Your task to perform on an android device: change text size in settings app Image 0: 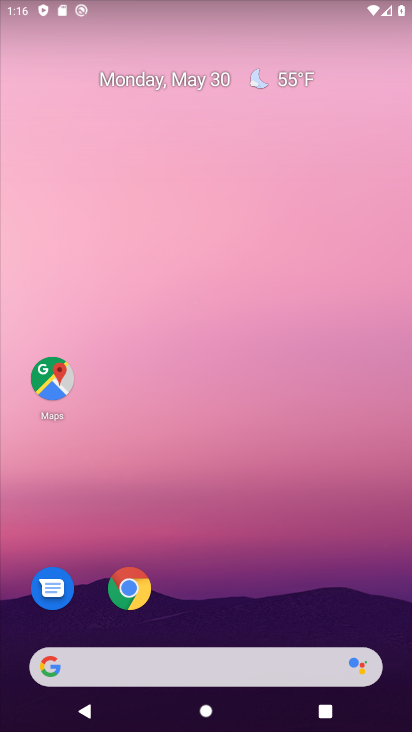
Step 0: drag from (371, 602) to (230, 125)
Your task to perform on an android device: change text size in settings app Image 1: 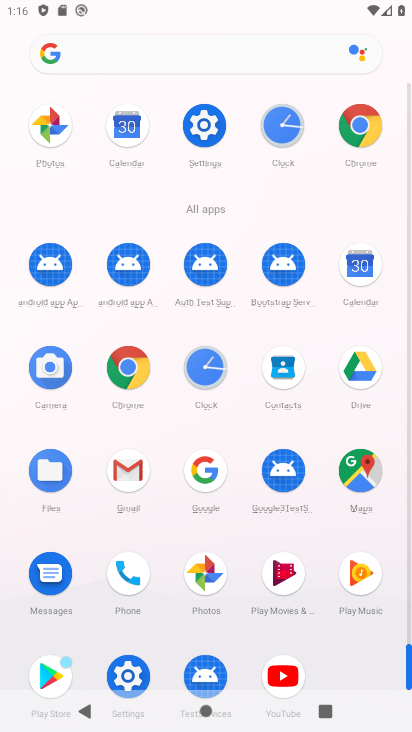
Step 1: click (127, 678)
Your task to perform on an android device: change text size in settings app Image 2: 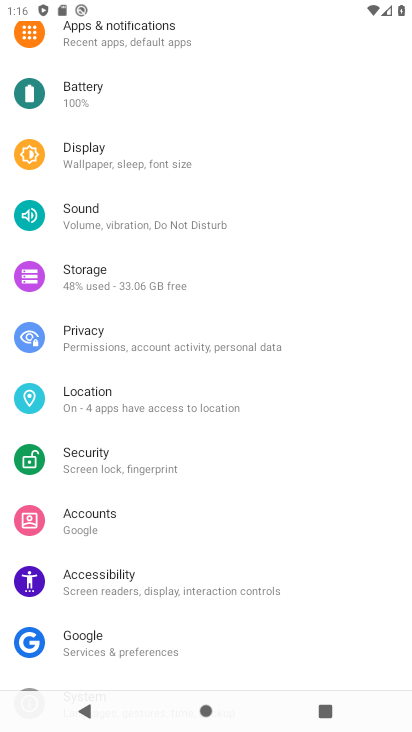
Step 2: click (103, 145)
Your task to perform on an android device: change text size in settings app Image 3: 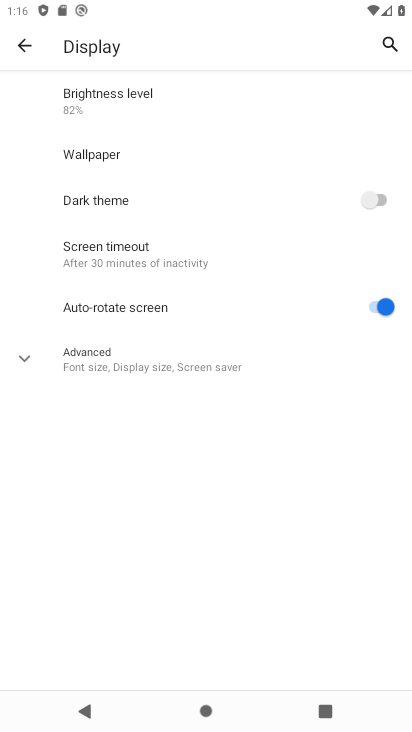
Step 3: click (21, 355)
Your task to perform on an android device: change text size in settings app Image 4: 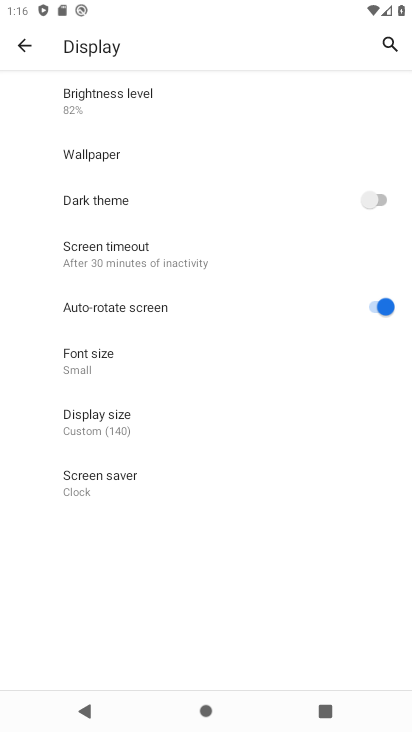
Step 4: click (99, 366)
Your task to perform on an android device: change text size in settings app Image 5: 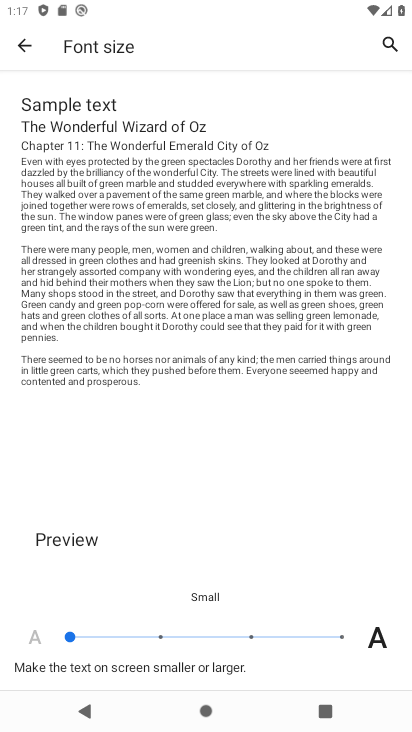
Step 5: click (162, 634)
Your task to perform on an android device: change text size in settings app Image 6: 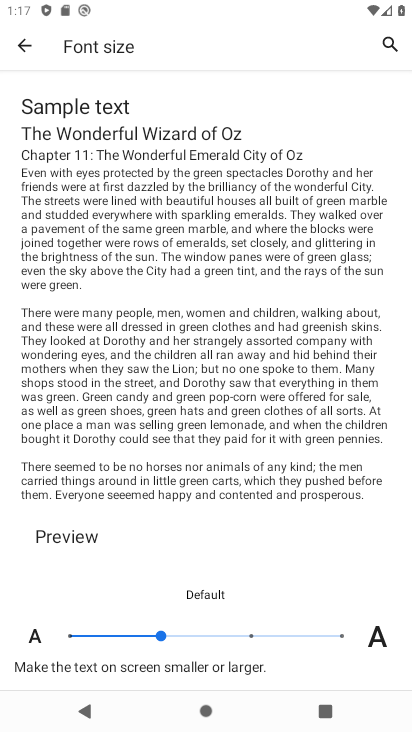
Step 6: task complete